Your task to perform on an android device: set default search engine in the chrome app Image 0: 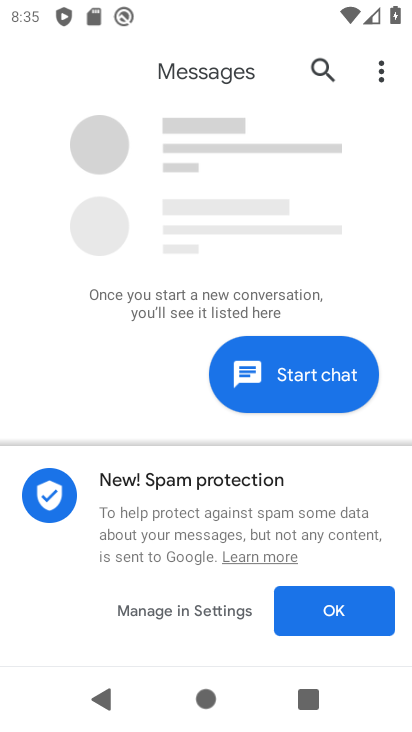
Step 0: press home button
Your task to perform on an android device: set default search engine in the chrome app Image 1: 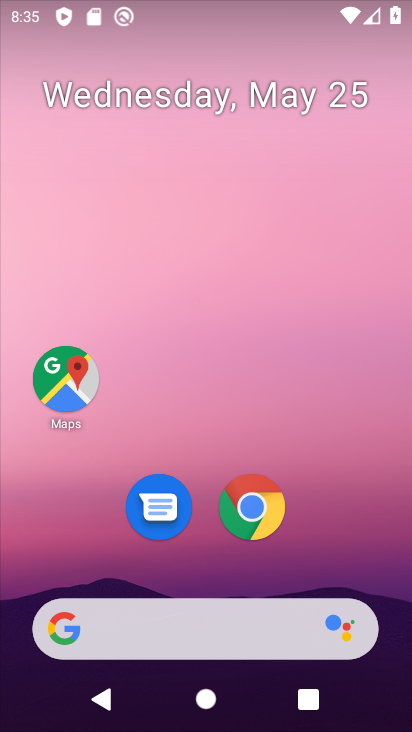
Step 1: click (260, 513)
Your task to perform on an android device: set default search engine in the chrome app Image 2: 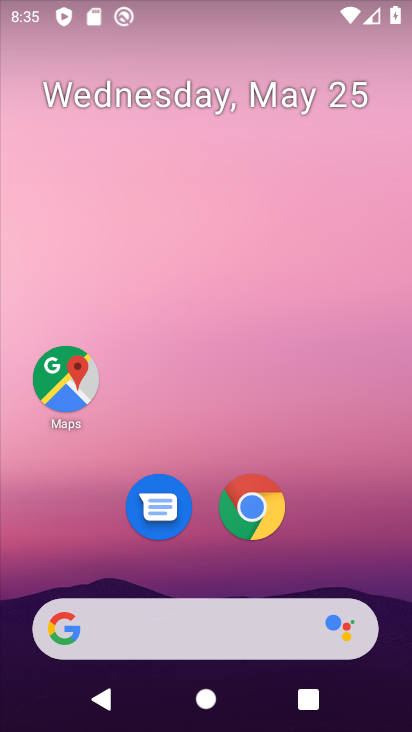
Step 2: click (260, 513)
Your task to perform on an android device: set default search engine in the chrome app Image 3: 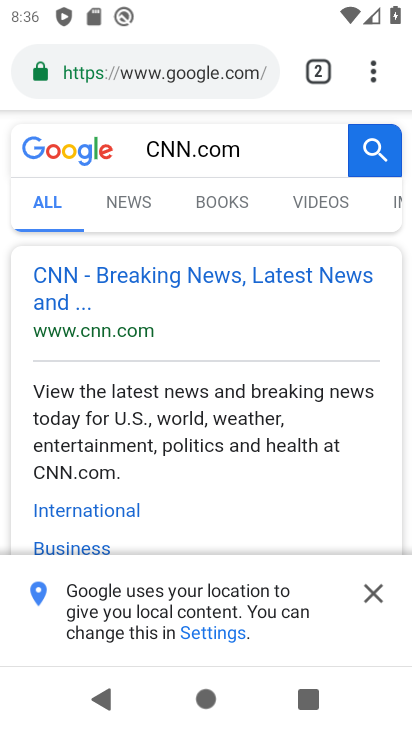
Step 3: click (362, 72)
Your task to perform on an android device: set default search engine in the chrome app Image 4: 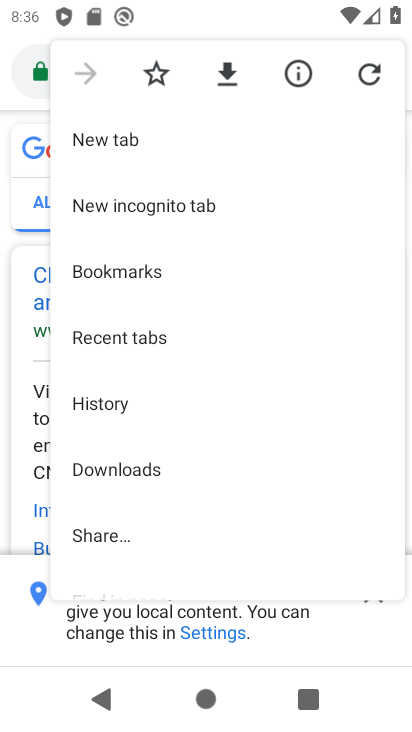
Step 4: drag from (141, 492) to (144, 58)
Your task to perform on an android device: set default search engine in the chrome app Image 5: 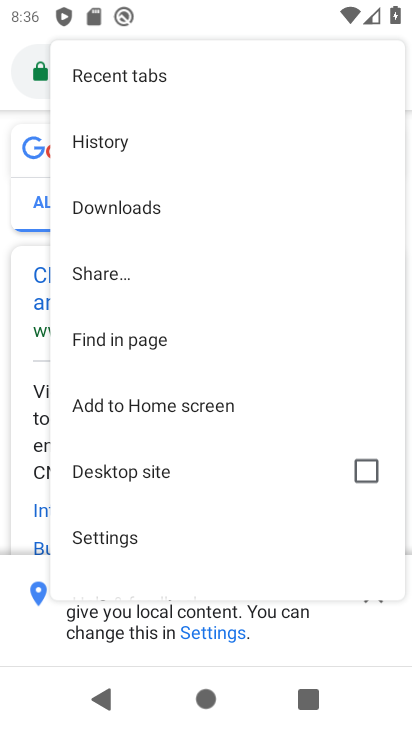
Step 5: click (99, 534)
Your task to perform on an android device: set default search engine in the chrome app Image 6: 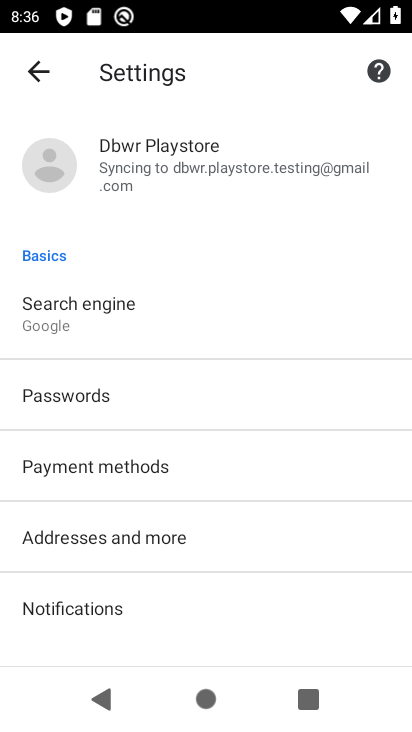
Step 6: click (126, 319)
Your task to perform on an android device: set default search engine in the chrome app Image 7: 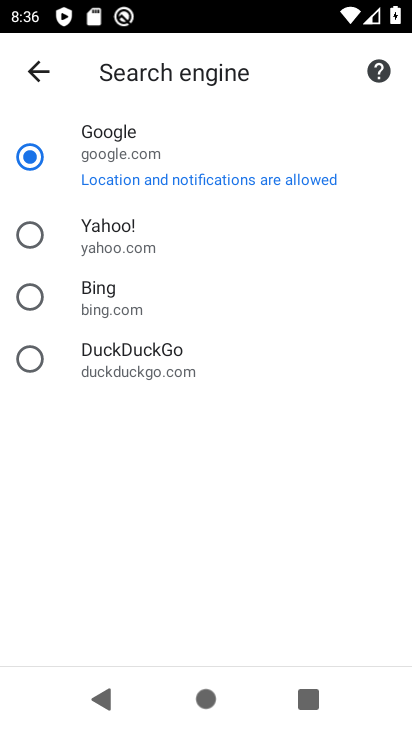
Step 7: task complete